Your task to perform on an android device: change timer sound Image 0: 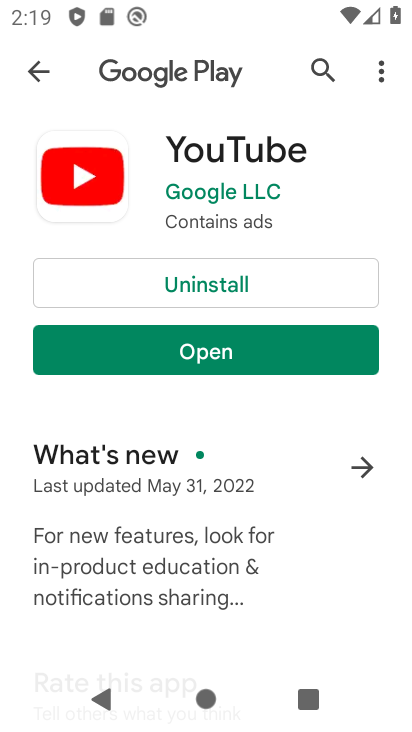
Step 0: press home button
Your task to perform on an android device: change timer sound Image 1: 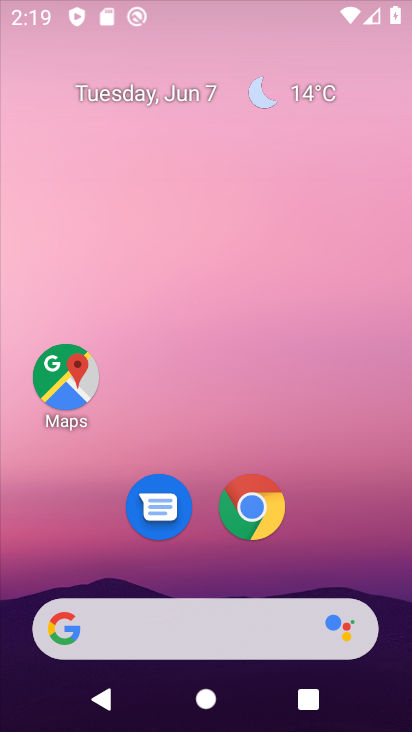
Step 1: drag from (359, 473) to (343, 79)
Your task to perform on an android device: change timer sound Image 2: 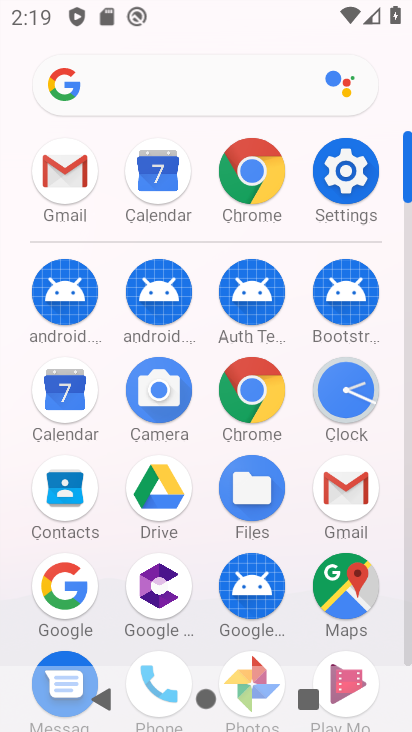
Step 2: click (344, 374)
Your task to perform on an android device: change timer sound Image 3: 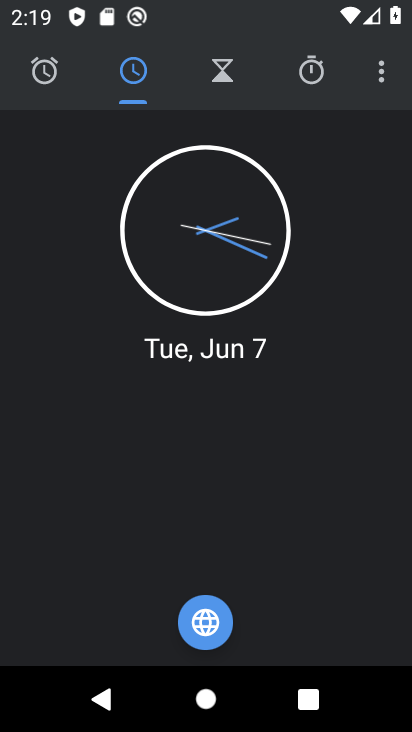
Step 3: click (384, 76)
Your task to perform on an android device: change timer sound Image 4: 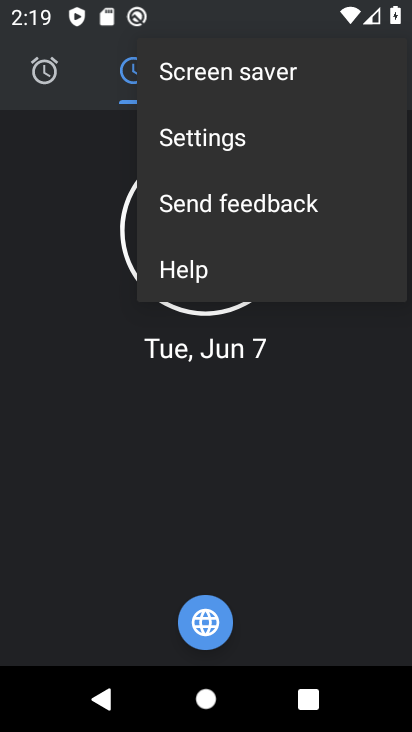
Step 4: click (254, 143)
Your task to perform on an android device: change timer sound Image 5: 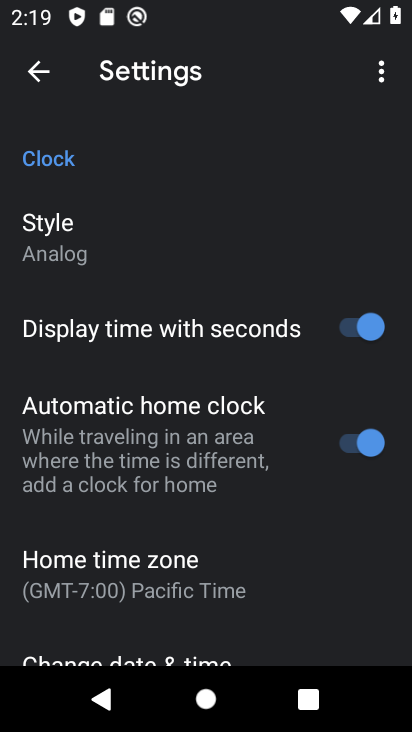
Step 5: drag from (234, 503) to (265, 115)
Your task to perform on an android device: change timer sound Image 6: 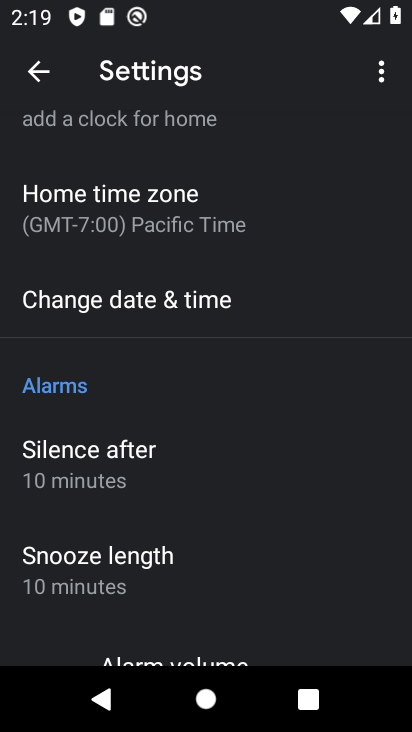
Step 6: drag from (186, 482) to (298, 84)
Your task to perform on an android device: change timer sound Image 7: 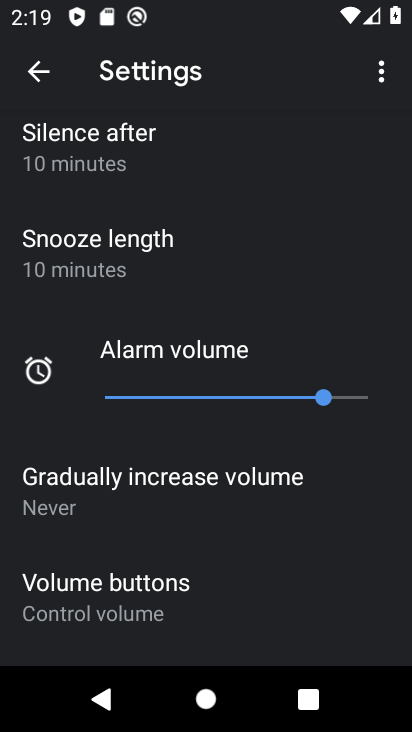
Step 7: drag from (209, 467) to (280, 110)
Your task to perform on an android device: change timer sound Image 8: 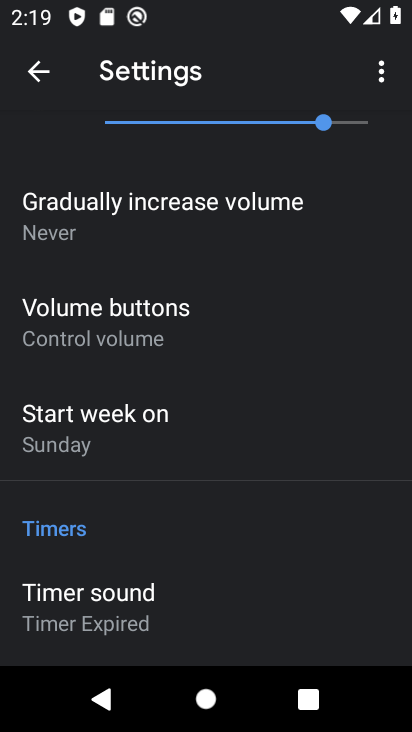
Step 8: click (135, 606)
Your task to perform on an android device: change timer sound Image 9: 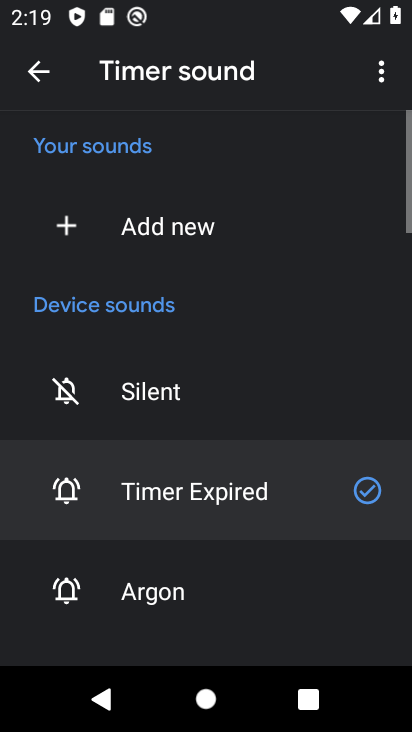
Step 9: click (182, 571)
Your task to perform on an android device: change timer sound Image 10: 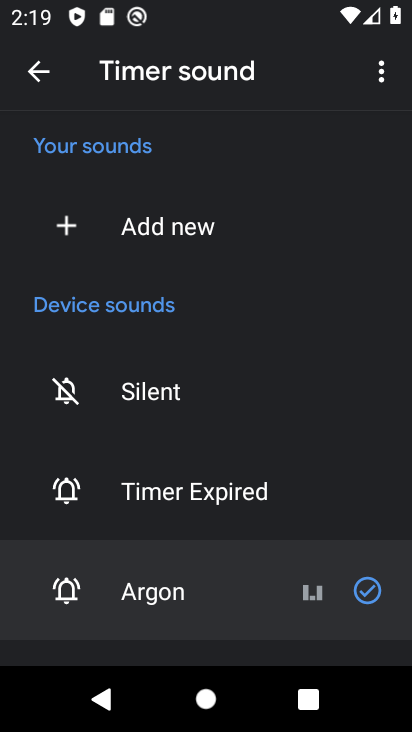
Step 10: task complete